Your task to perform on an android device: turn on showing notifications on the lock screen Image 0: 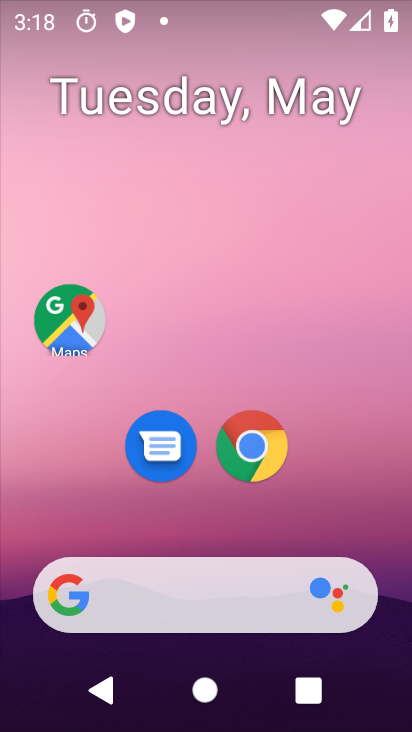
Step 0: drag from (235, 692) to (231, 174)
Your task to perform on an android device: turn on showing notifications on the lock screen Image 1: 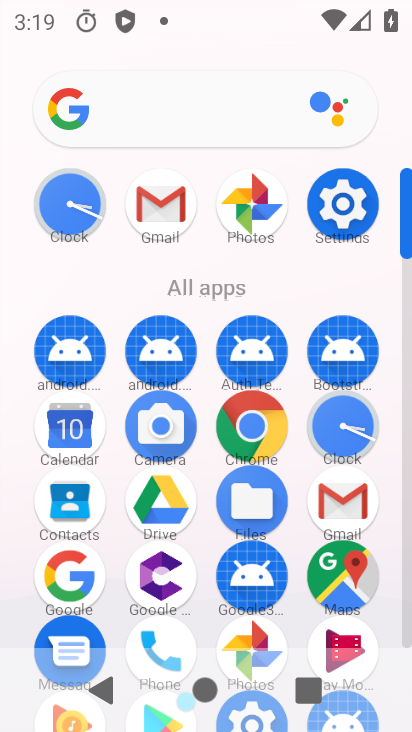
Step 1: click (349, 199)
Your task to perform on an android device: turn on showing notifications on the lock screen Image 2: 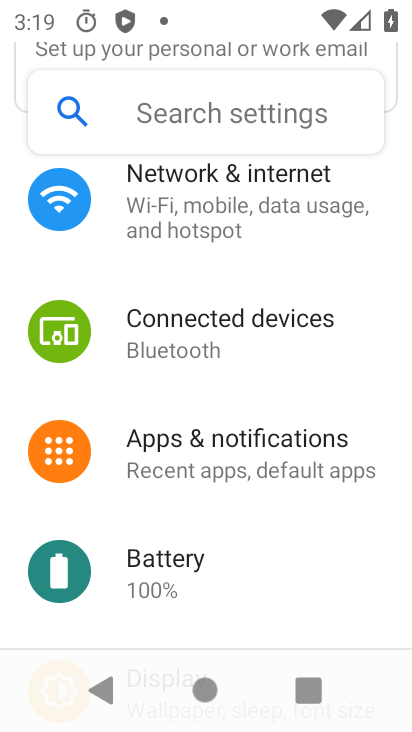
Step 2: click (215, 434)
Your task to perform on an android device: turn on showing notifications on the lock screen Image 3: 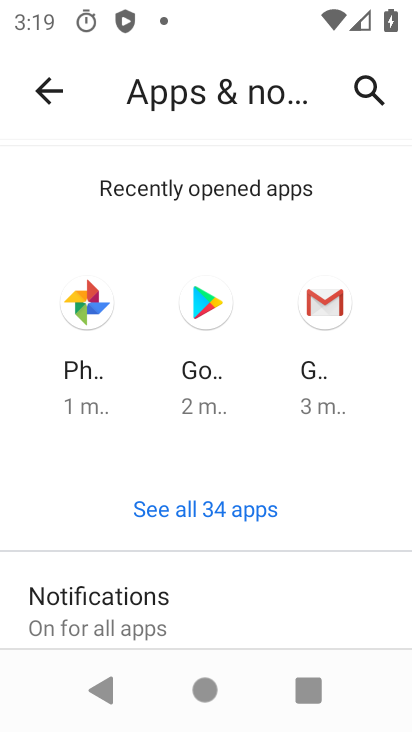
Step 3: drag from (209, 618) to (214, 295)
Your task to perform on an android device: turn on showing notifications on the lock screen Image 4: 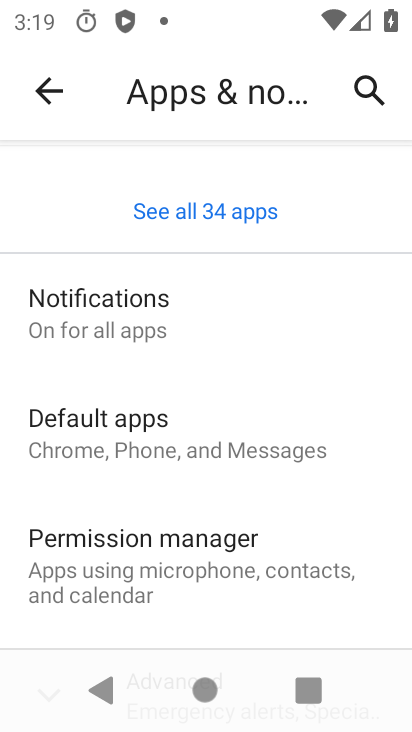
Step 4: click (109, 310)
Your task to perform on an android device: turn on showing notifications on the lock screen Image 5: 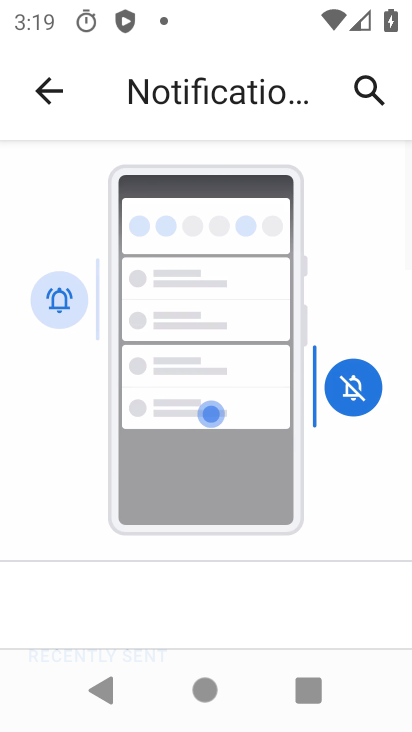
Step 5: drag from (193, 626) to (240, 236)
Your task to perform on an android device: turn on showing notifications on the lock screen Image 6: 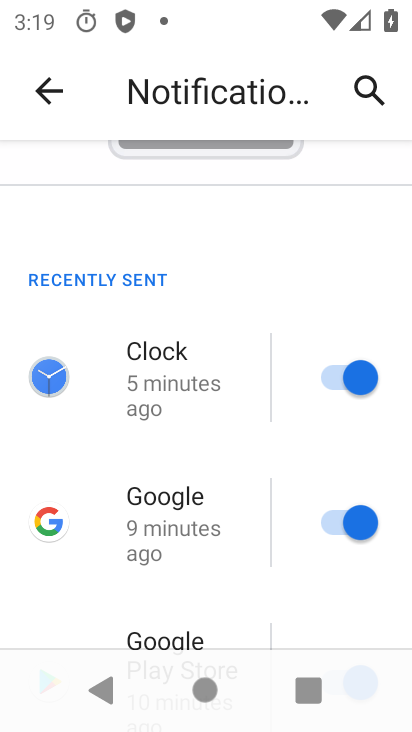
Step 6: drag from (207, 608) to (209, 214)
Your task to perform on an android device: turn on showing notifications on the lock screen Image 7: 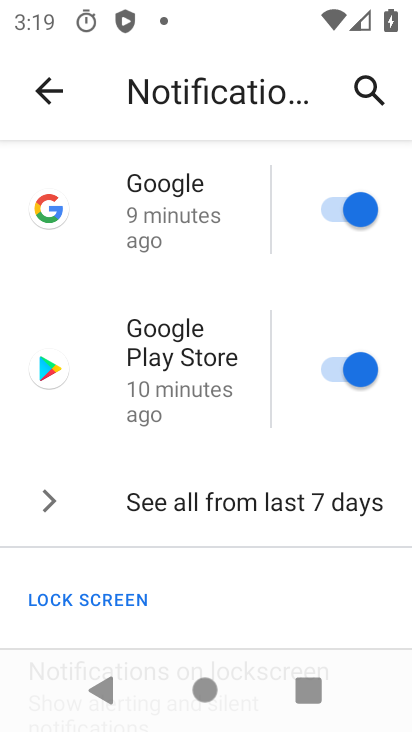
Step 7: drag from (172, 635) to (206, 251)
Your task to perform on an android device: turn on showing notifications on the lock screen Image 8: 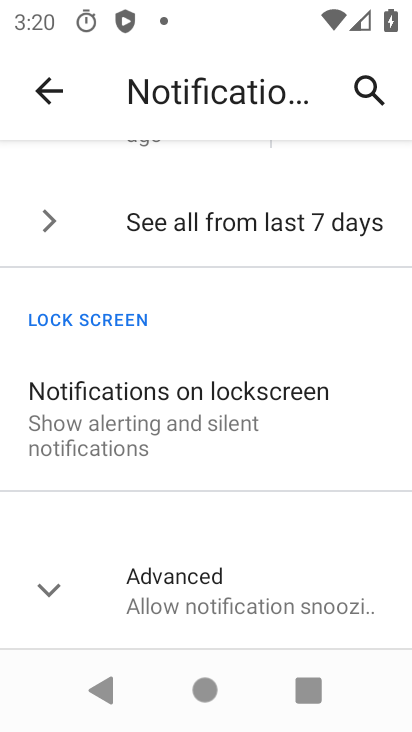
Step 8: click (148, 427)
Your task to perform on an android device: turn on showing notifications on the lock screen Image 9: 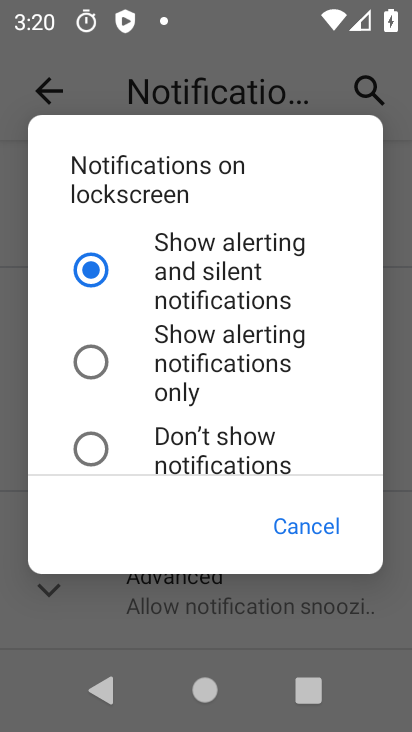
Step 9: click (303, 526)
Your task to perform on an android device: turn on showing notifications on the lock screen Image 10: 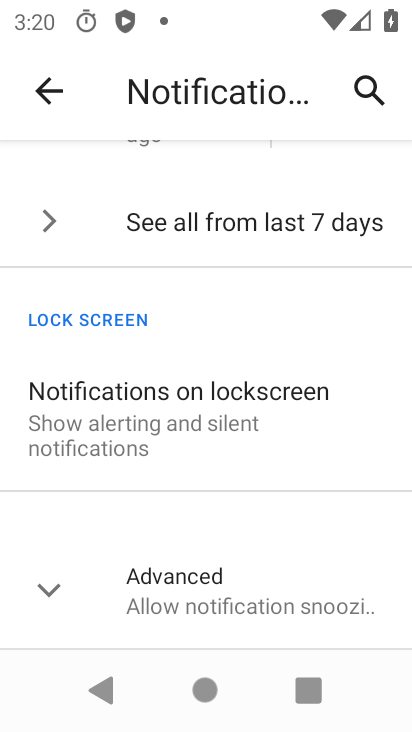
Step 10: task complete